Your task to perform on an android device: turn on bluetooth scan Image 0: 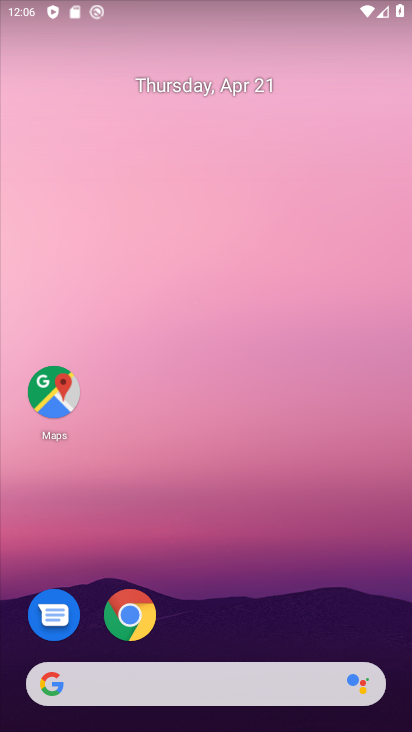
Step 0: drag from (196, 634) to (232, 157)
Your task to perform on an android device: turn on bluetooth scan Image 1: 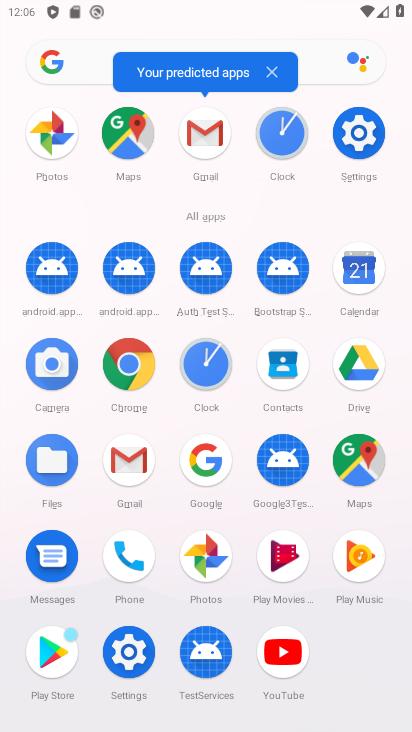
Step 1: click (356, 145)
Your task to perform on an android device: turn on bluetooth scan Image 2: 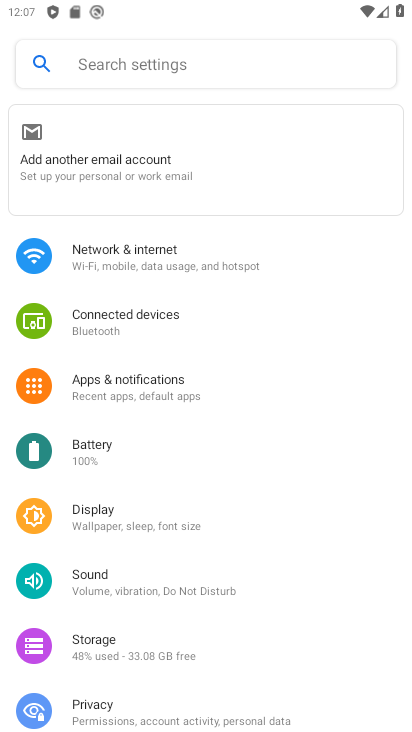
Step 2: click (123, 316)
Your task to perform on an android device: turn on bluetooth scan Image 3: 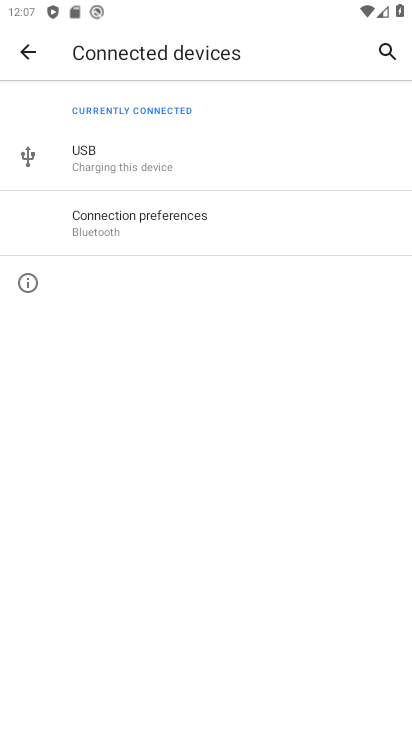
Step 3: click (144, 223)
Your task to perform on an android device: turn on bluetooth scan Image 4: 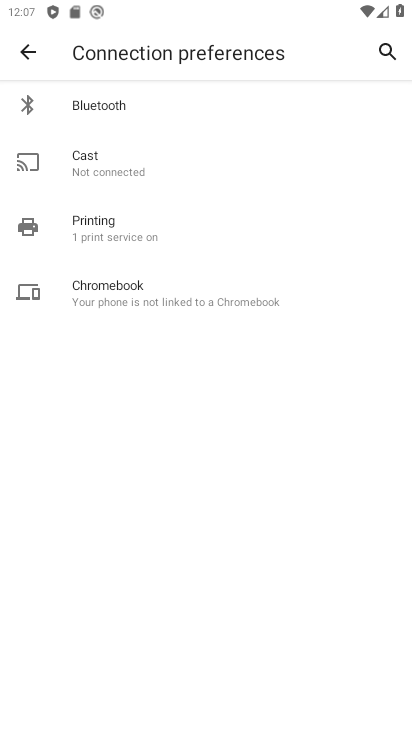
Step 4: click (117, 104)
Your task to perform on an android device: turn on bluetooth scan Image 5: 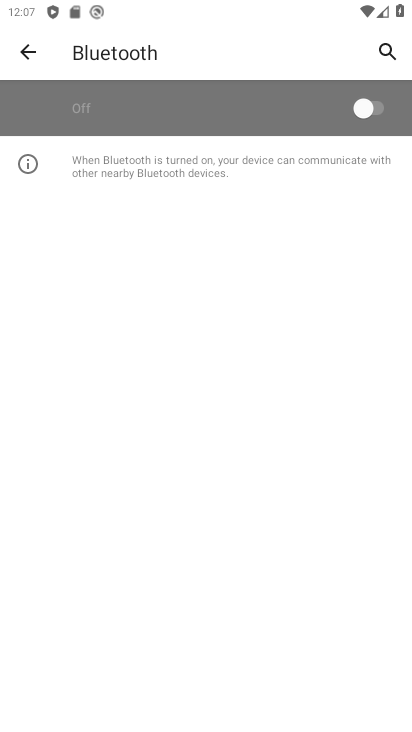
Step 5: click (363, 111)
Your task to perform on an android device: turn on bluetooth scan Image 6: 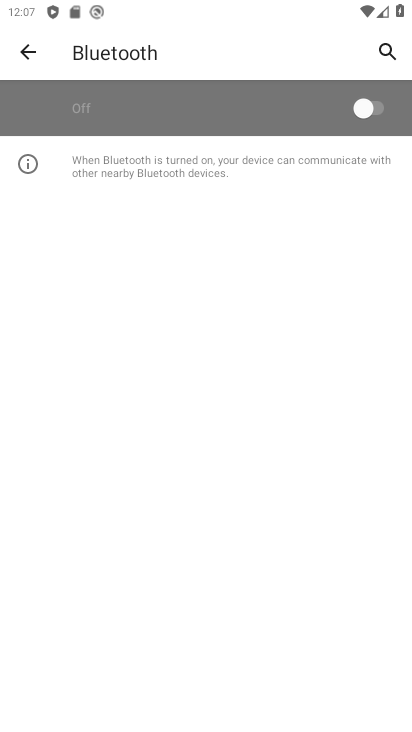
Step 6: click (376, 109)
Your task to perform on an android device: turn on bluetooth scan Image 7: 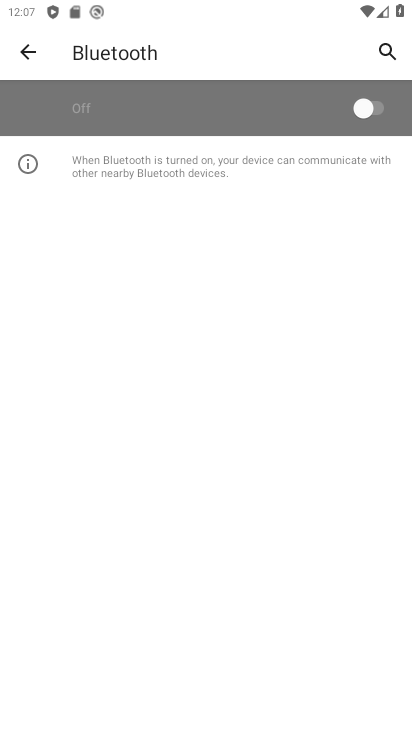
Step 7: click (376, 109)
Your task to perform on an android device: turn on bluetooth scan Image 8: 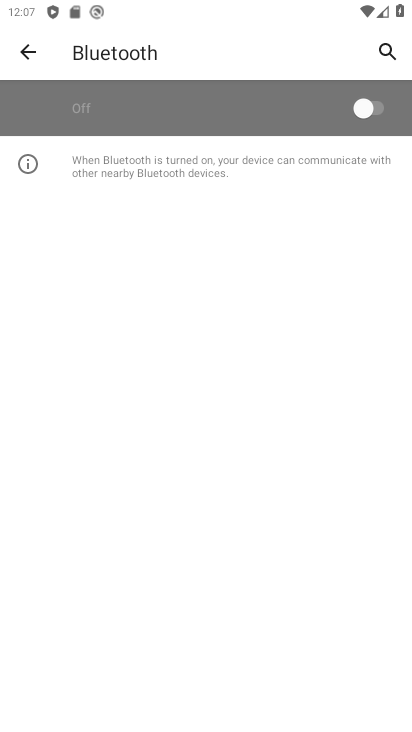
Step 8: click (376, 109)
Your task to perform on an android device: turn on bluetooth scan Image 9: 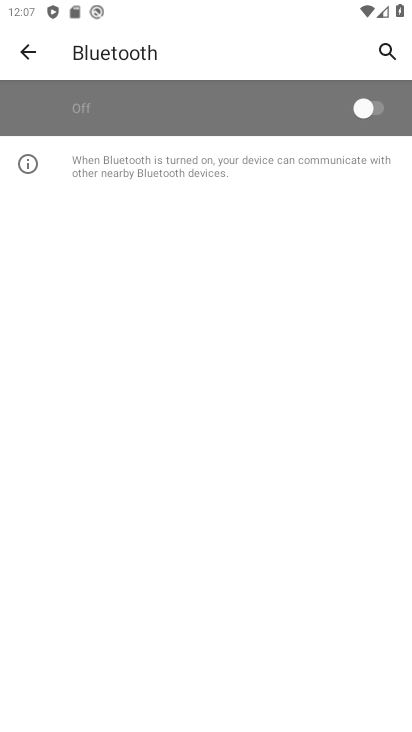
Step 9: click (376, 109)
Your task to perform on an android device: turn on bluetooth scan Image 10: 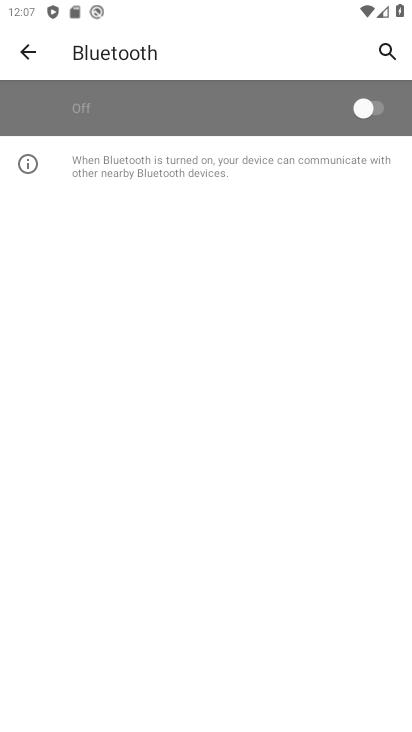
Step 10: click (376, 109)
Your task to perform on an android device: turn on bluetooth scan Image 11: 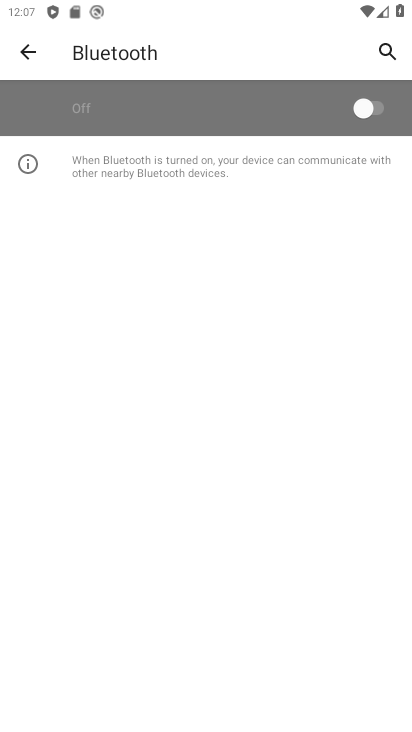
Step 11: task complete